Your task to perform on an android device: turn off picture-in-picture Image 0: 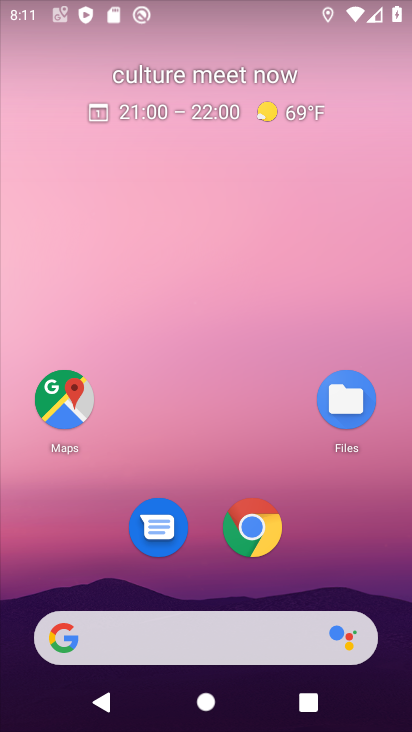
Step 0: click (250, 523)
Your task to perform on an android device: turn off picture-in-picture Image 1: 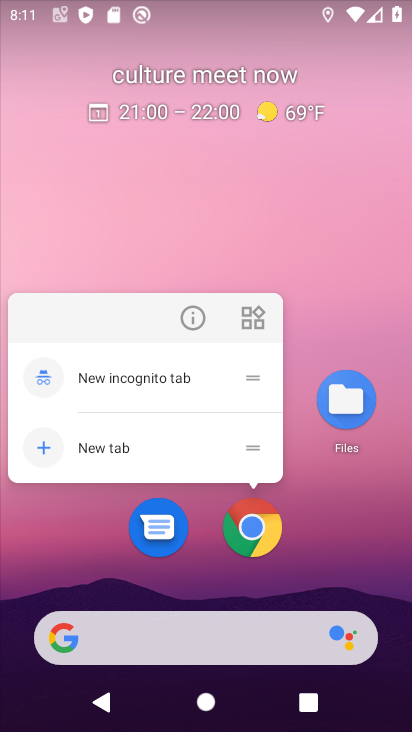
Step 1: click (201, 314)
Your task to perform on an android device: turn off picture-in-picture Image 2: 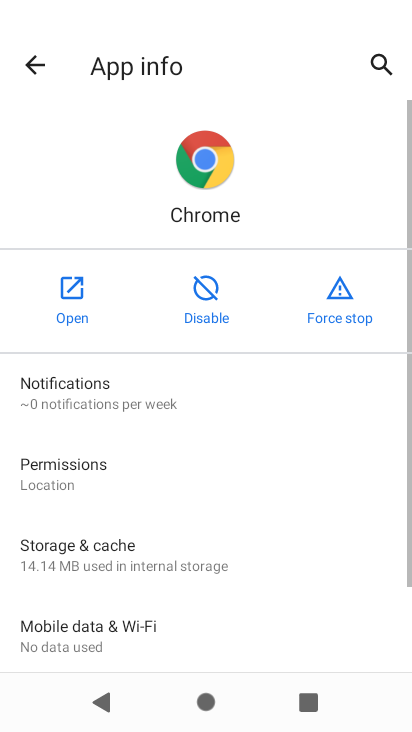
Step 2: drag from (245, 572) to (223, 57)
Your task to perform on an android device: turn off picture-in-picture Image 3: 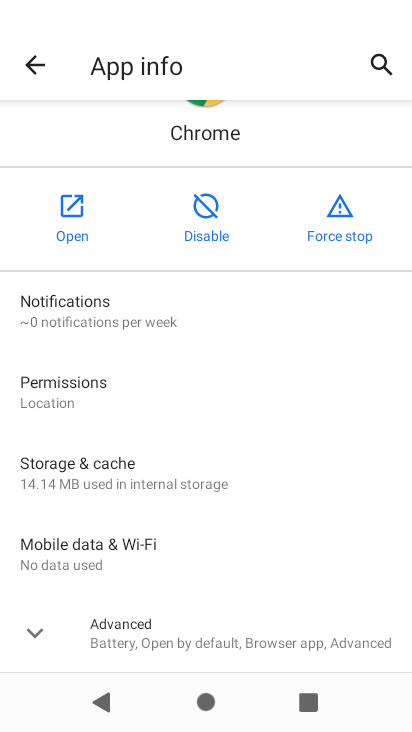
Step 3: click (135, 659)
Your task to perform on an android device: turn off picture-in-picture Image 4: 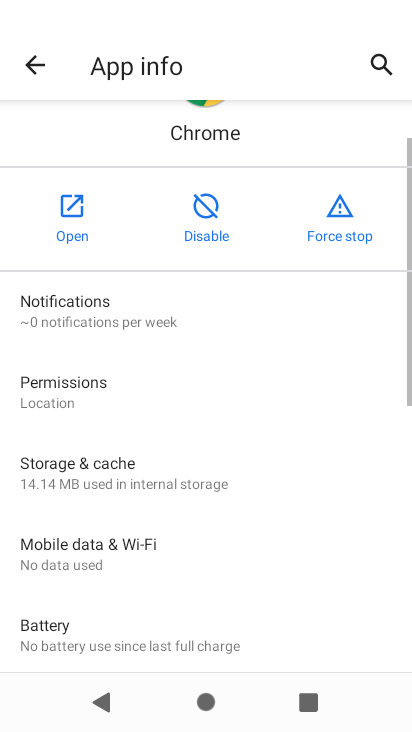
Step 4: drag from (283, 596) to (218, 118)
Your task to perform on an android device: turn off picture-in-picture Image 5: 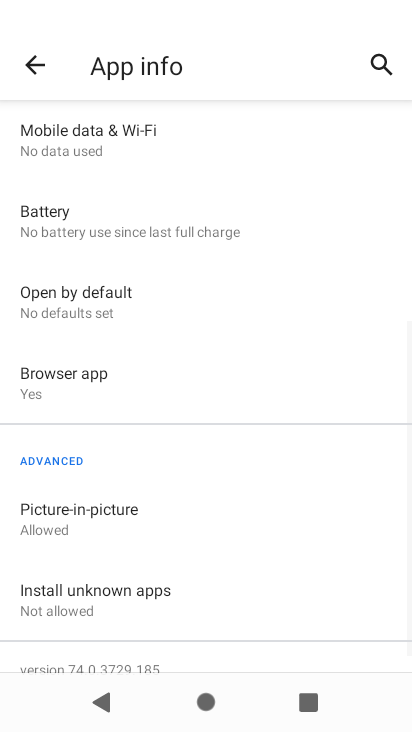
Step 5: click (88, 533)
Your task to perform on an android device: turn off picture-in-picture Image 6: 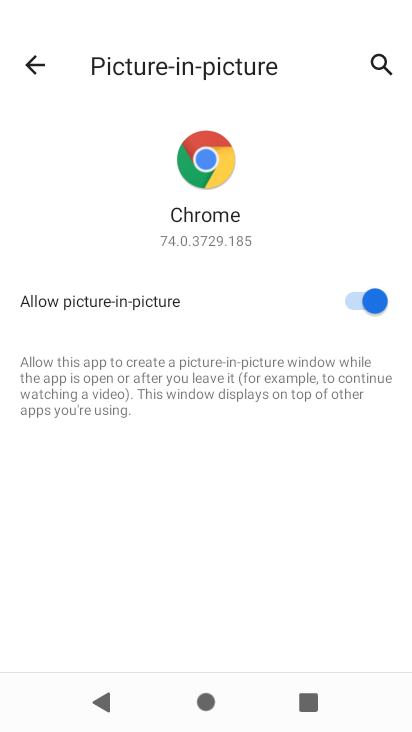
Step 6: click (353, 287)
Your task to perform on an android device: turn off picture-in-picture Image 7: 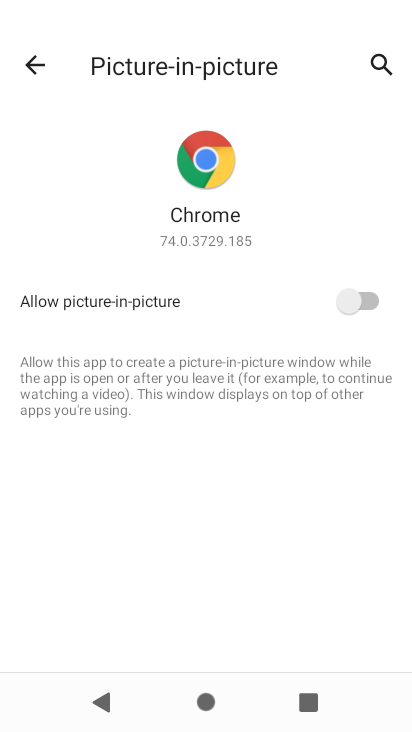
Step 7: task complete